Your task to perform on an android device: toggle notifications settings in the gmail app Image 0: 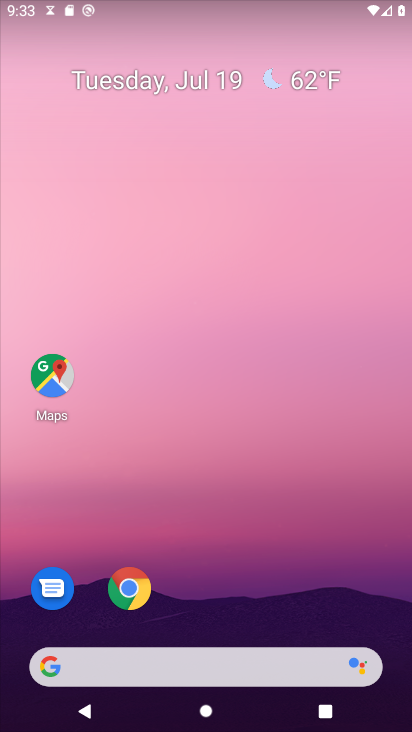
Step 0: drag from (180, 615) to (181, 48)
Your task to perform on an android device: toggle notifications settings in the gmail app Image 1: 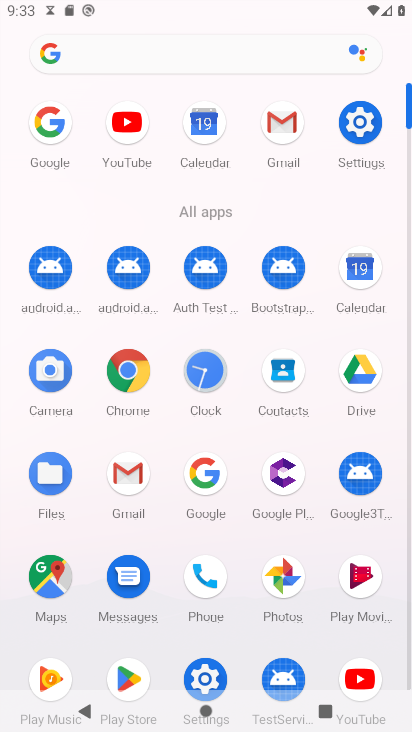
Step 1: click (282, 130)
Your task to perform on an android device: toggle notifications settings in the gmail app Image 2: 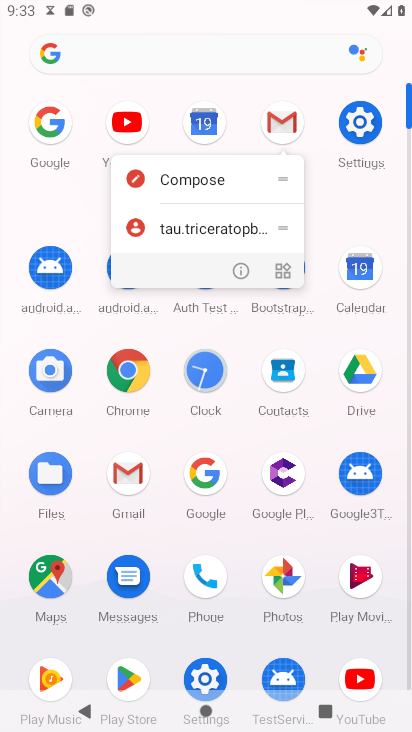
Step 2: click (282, 116)
Your task to perform on an android device: toggle notifications settings in the gmail app Image 3: 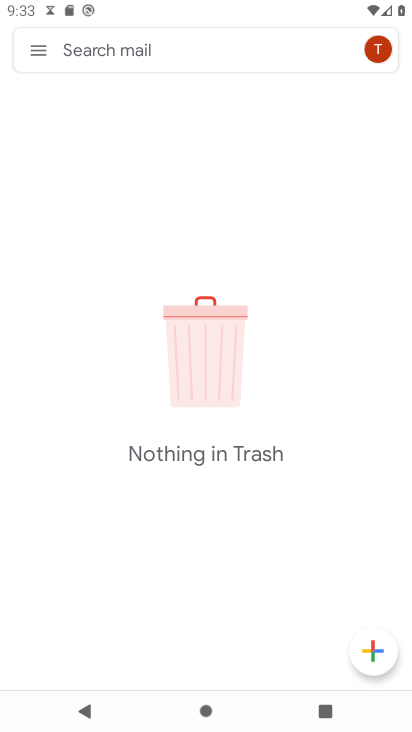
Step 3: click (35, 52)
Your task to perform on an android device: toggle notifications settings in the gmail app Image 4: 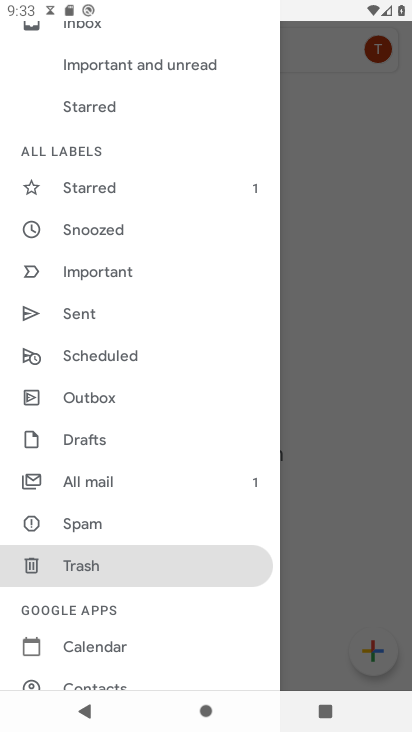
Step 4: drag from (103, 586) to (113, 286)
Your task to perform on an android device: toggle notifications settings in the gmail app Image 5: 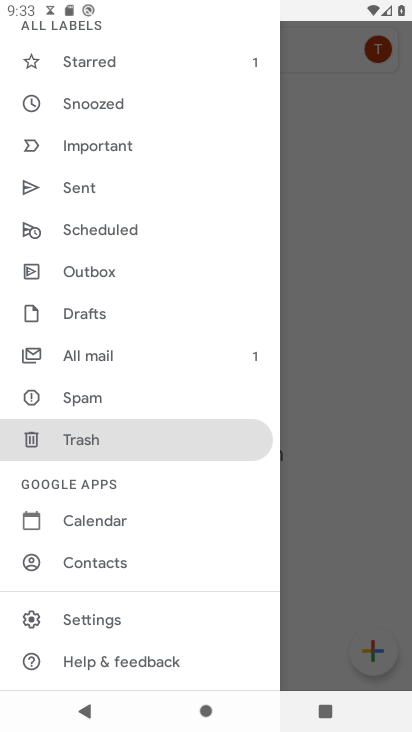
Step 5: click (72, 612)
Your task to perform on an android device: toggle notifications settings in the gmail app Image 6: 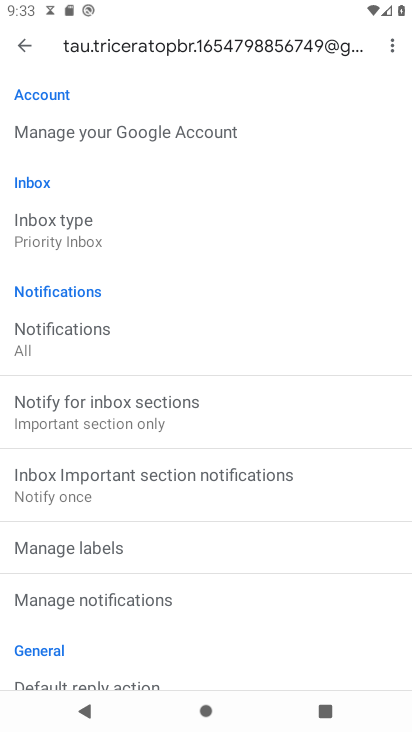
Step 6: click (55, 598)
Your task to perform on an android device: toggle notifications settings in the gmail app Image 7: 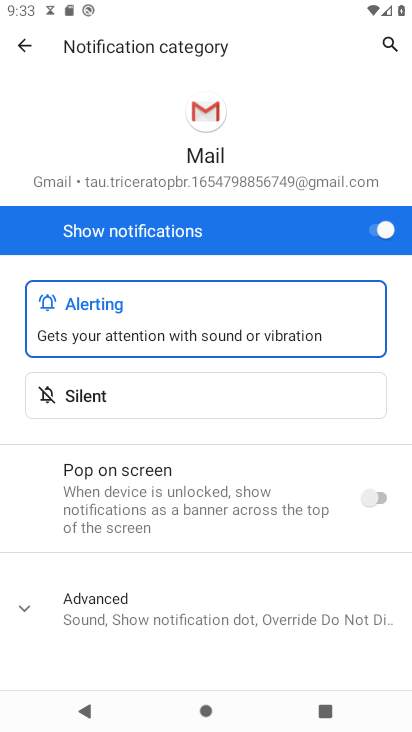
Step 7: click (381, 236)
Your task to perform on an android device: toggle notifications settings in the gmail app Image 8: 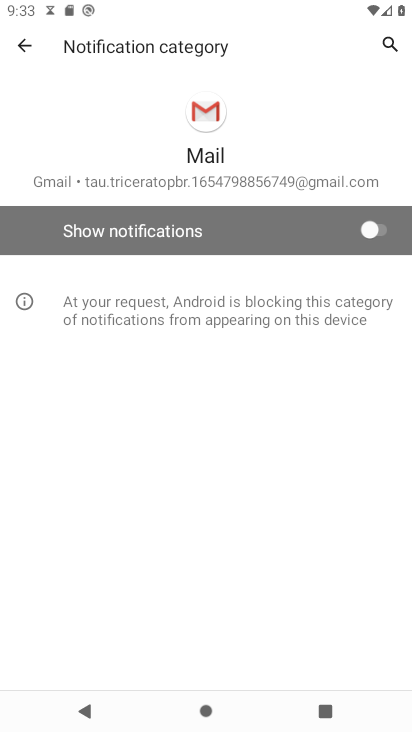
Step 8: task complete